Your task to perform on an android device: snooze an email in the gmail app Image 0: 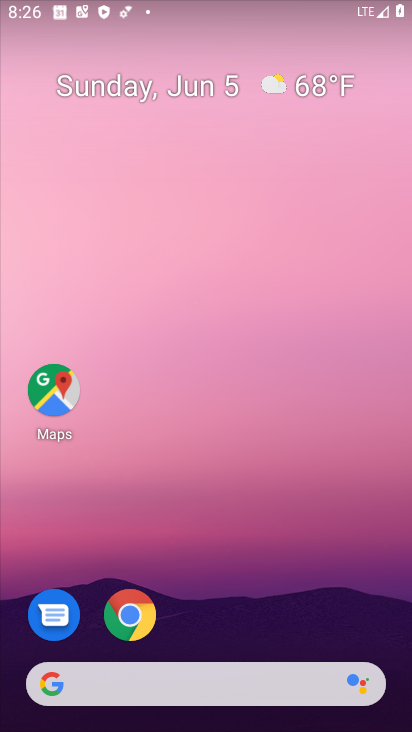
Step 0: click (390, 524)
Your task to perform on an android device: snooze an email in the gmail app Image 1: 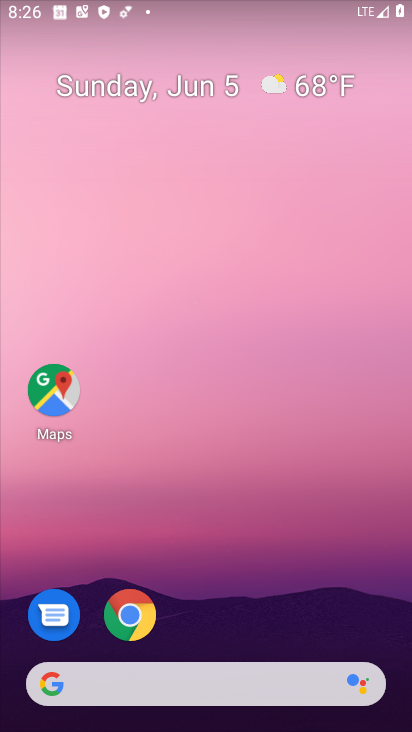
Step 1: drag from (227, 673) to (187, 118)
Your task to perform on an android device: snooze an email in the gmail app Image 2: 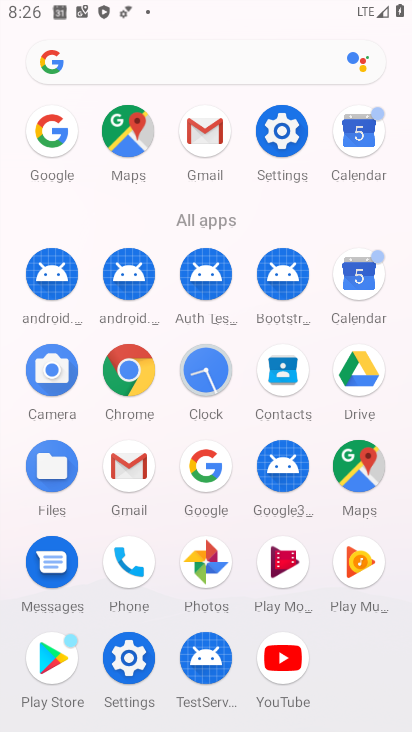
Step 2: click (131, 485)
Your task to perform on an android device: snooze an email in the gmail app Image 3: 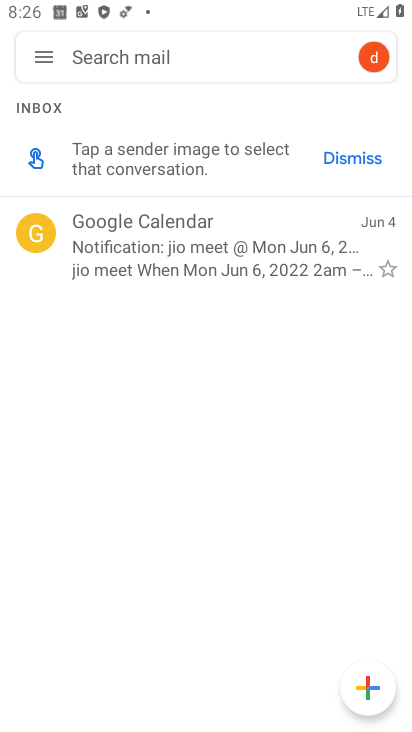
Step 3: click (41, 221)
Your task to perform on an android device: snooze an email in the gmail app Image 4: 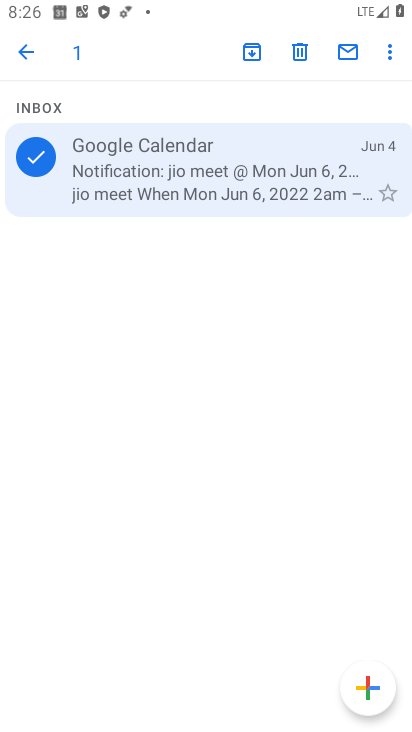
Step 4: click (386, 55)
Your task to perform on an android device: snooze an email in the gmail app Image 5: 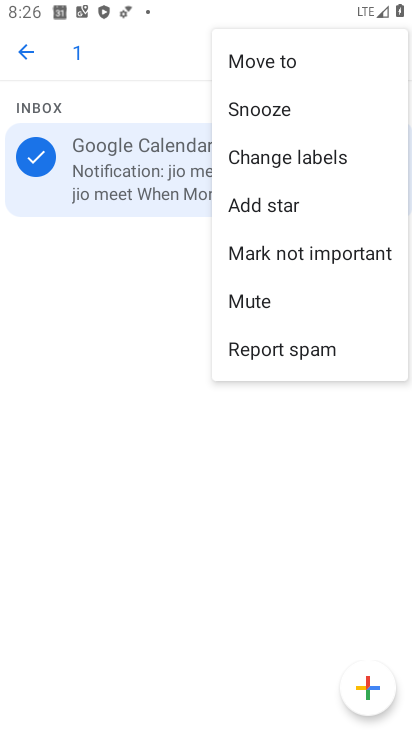
Step 5: click (272, 112)
Your task to perform on an android device: snooze an email in the gmail app Image 6: 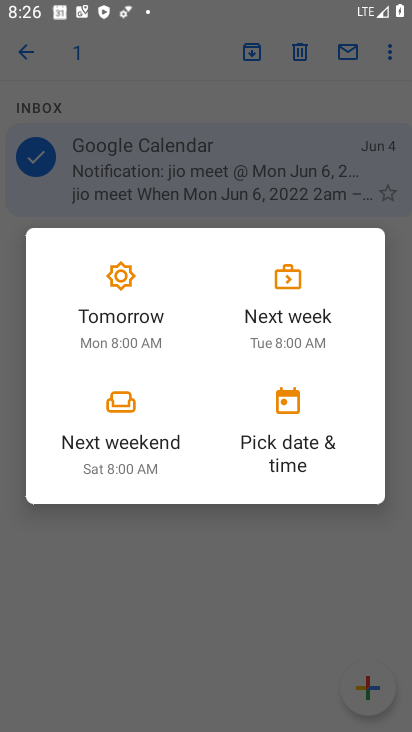
Step 6: click (95, 329)
Your task to perform on an android device: snooze an email in the gmail app Image 7: 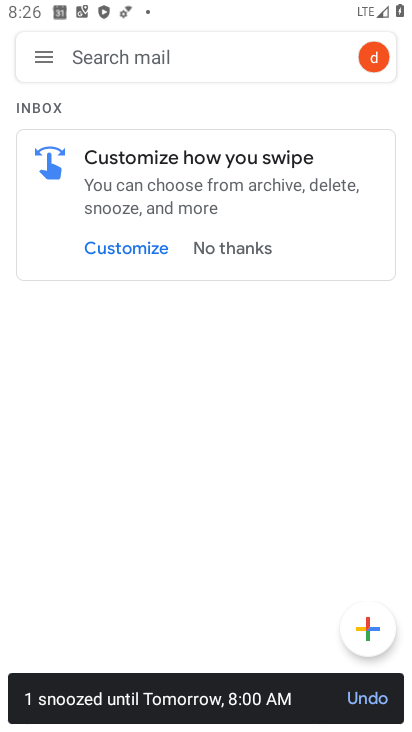
Step 7: task complete